Your task to perform on an android device: open the mobile data screen to see how much data has been used Image 0: 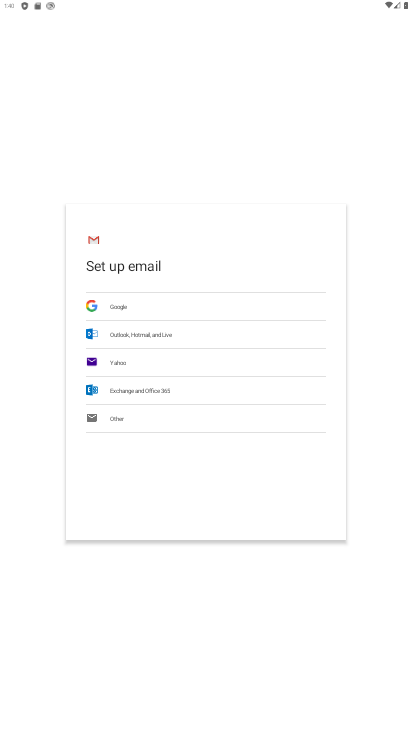
Step 0: press home button
Your task to perform on an android device: open the mobile data screen to see how much data has been used Image 1: 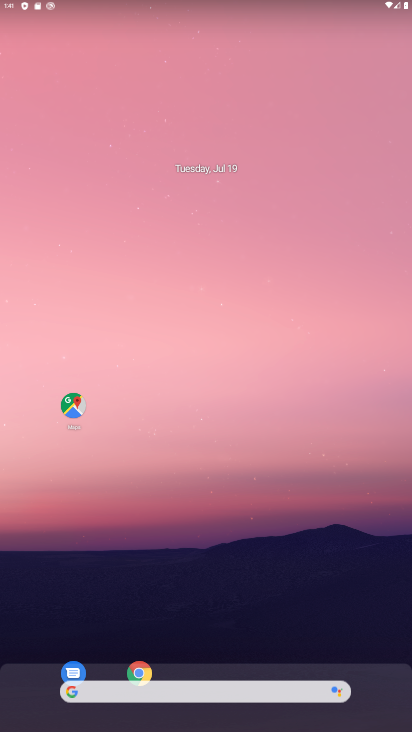
Step 1: drag from (268, 607) to (254, 5)
Your task to perform on an android device: open the mobile data screen to see how much data has been used Image 2: 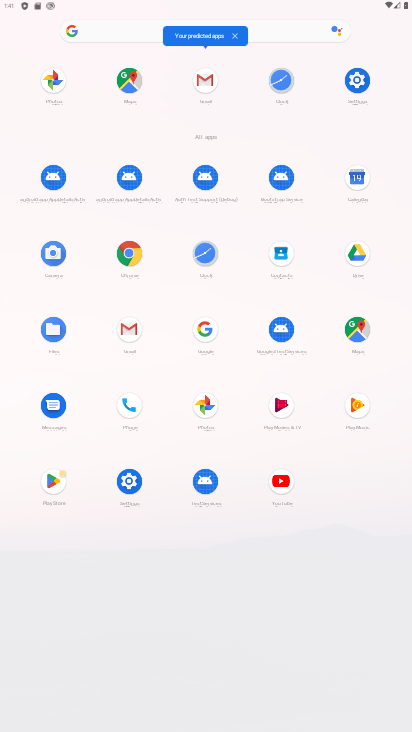
Step 2: click (360, 85)
Your task to perform on an android device: open the mobile data screen to see how much data has been used Image 3: 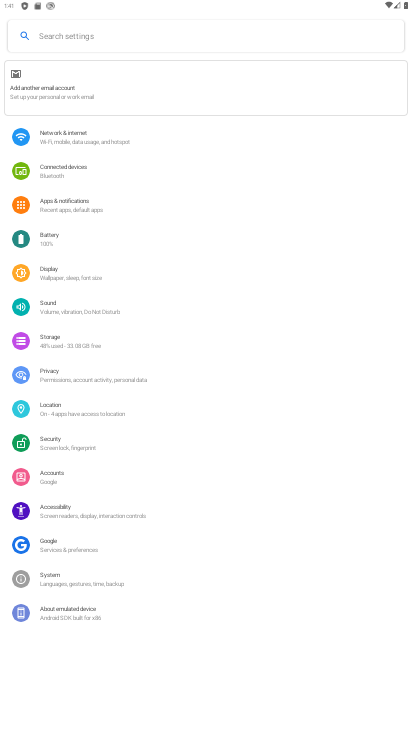
Step 3: click (220, 137)
Your task to perform on an android device: open the mobile data screen to see how much data has been used Image 4: 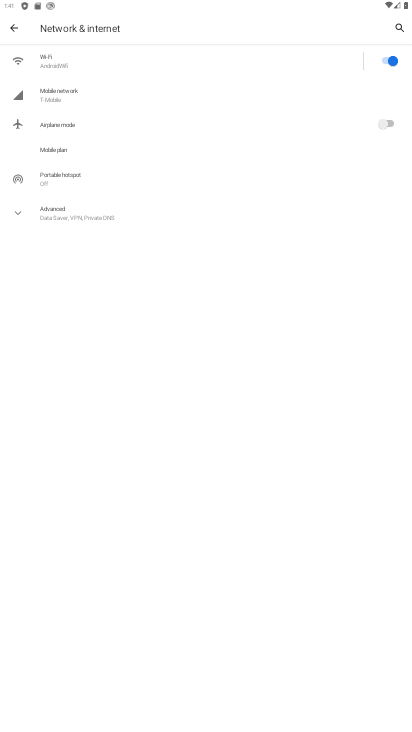
Step 4: click (123, 96)
Your task to perform on an android device: open the mobile data screen to see how much data has been used Image 5: 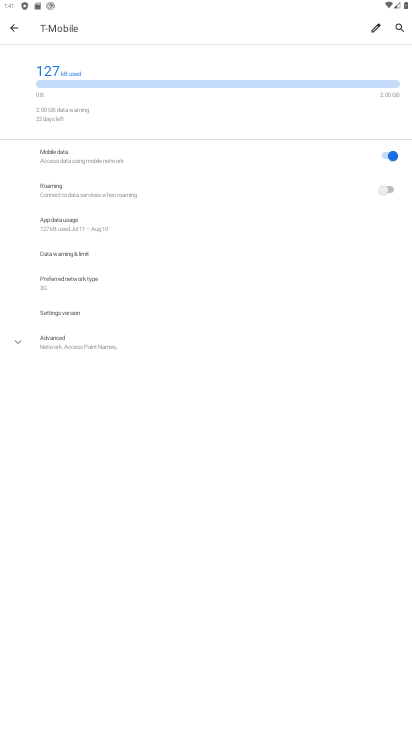
Step 5: task complete